Your task to perform on an android device: Turn off the flashlight Image 0: 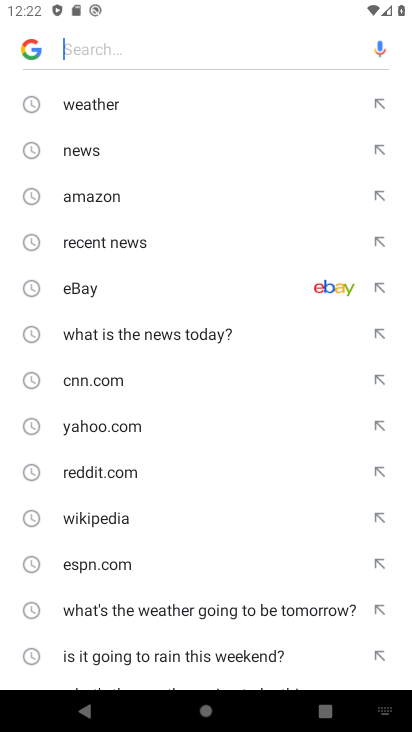
Step 0: press home button
Your task to perform on an android device: Turn off the flashlight Image 1: 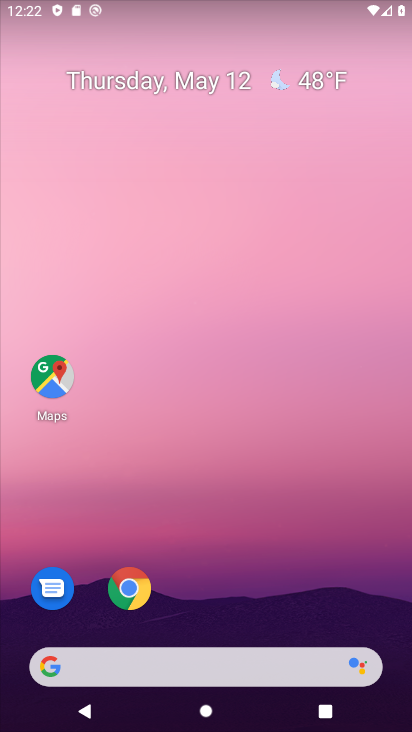
Step 1: task complete